Your task to perform on an android device: Go to Yahoo.com Image 0: 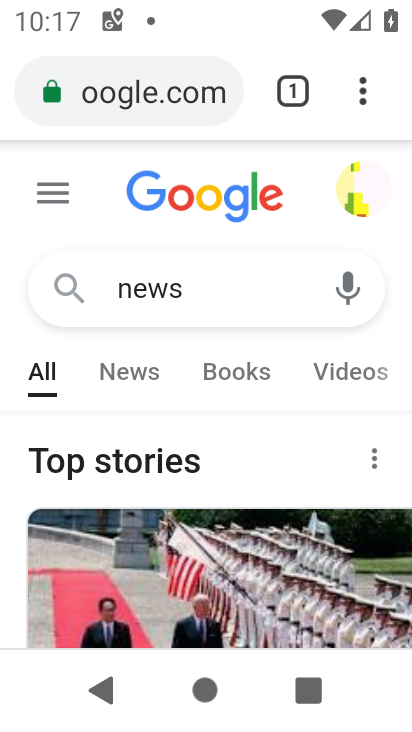
Step 0: press home button
Your task to perform on an android device: Go to Yahoo.com Image 1: 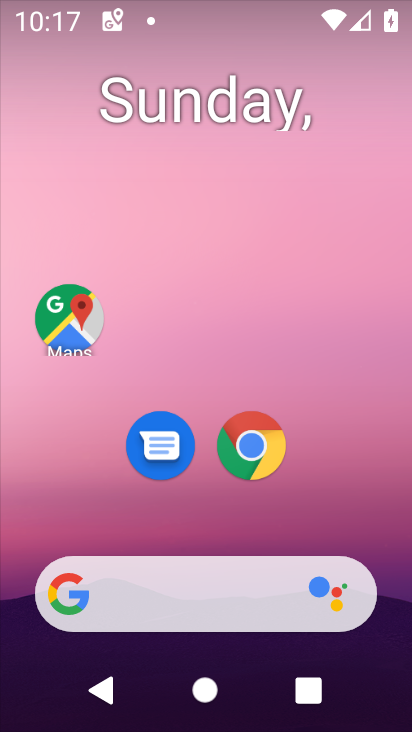
Step 1: click (251, 467)
Your task to perform on an android device: Go to Yahoo.com Image 2: 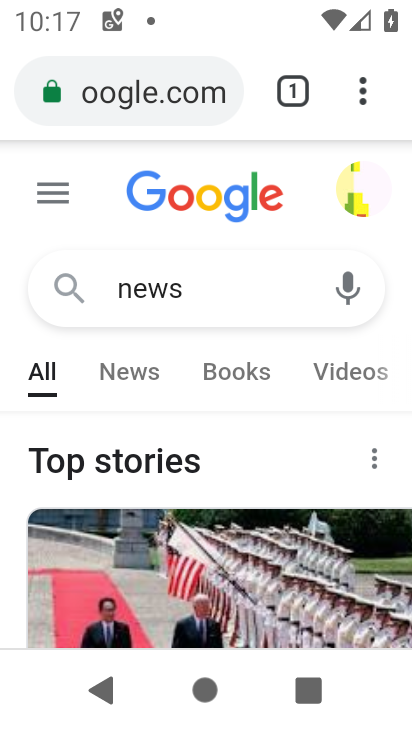
Step 2: click (208, 98)
Your task to perform on an android device: Go to Yahoo.com Image 3: 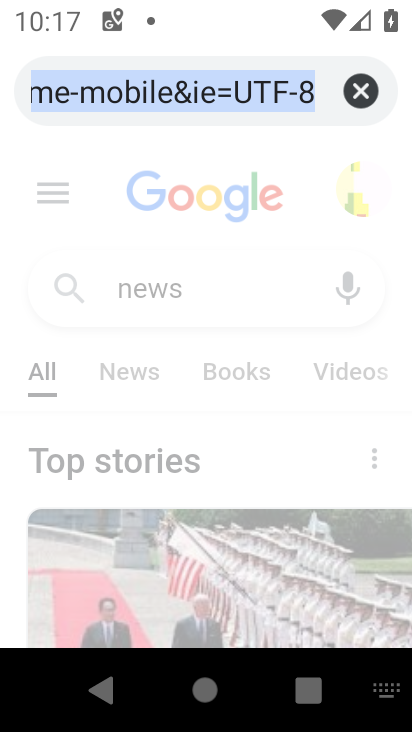
Step 3: click (356, 101)
Your task to perform on an android device: Go to Yahoo.com Image 4: 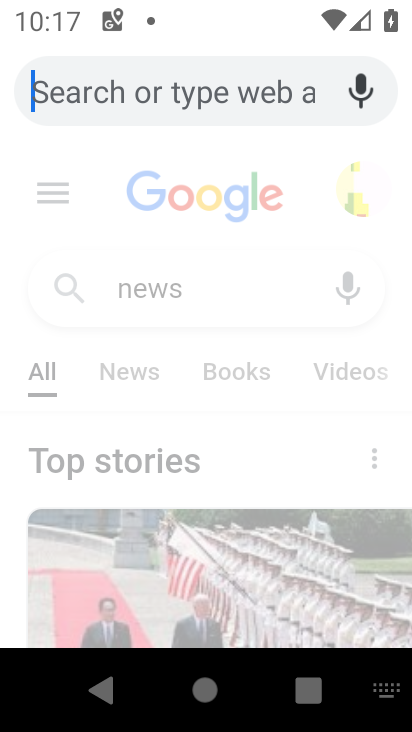
Step 4: type " Yahoo.com"
Your task to perform on an android device: Go to Yahoo.com Image 5: 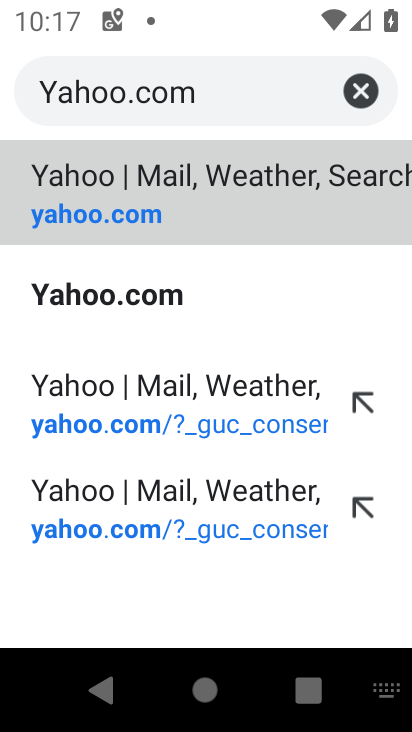
Step 5: click (255, 209)
Your task to perform on an android device: Go to Yahoo.com Image 6: 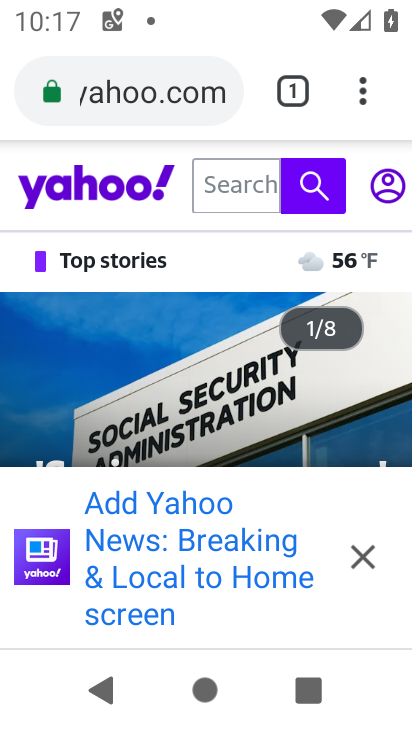
Step 6: task complete